Your task to perform on an android device: Open calendar and show me the first week of next month Image 0: 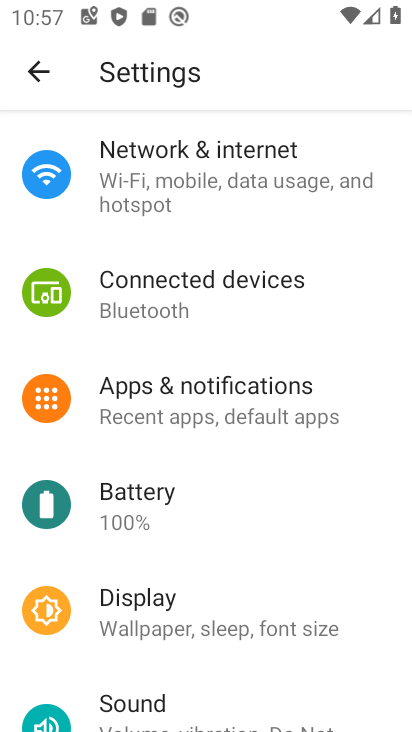
Step 0: press home button
Your task to perform on an android device: Open calendar and show me the first week of next month Image 1: 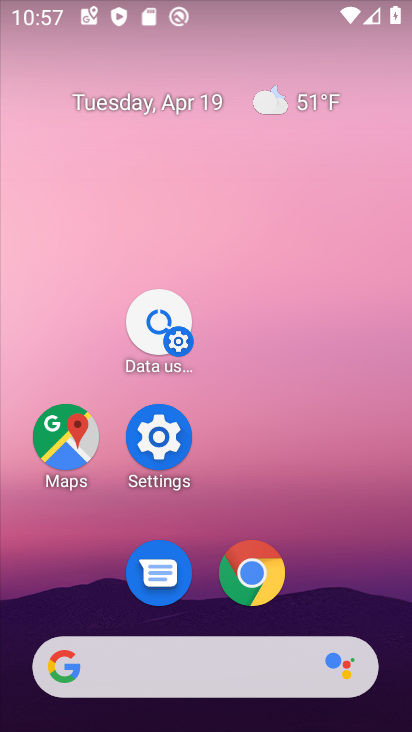
Step 1: drag from (365, 597) to (305, 2)
Your task to perform on an android device: Open calendar and show me the first week of next month Image 2: 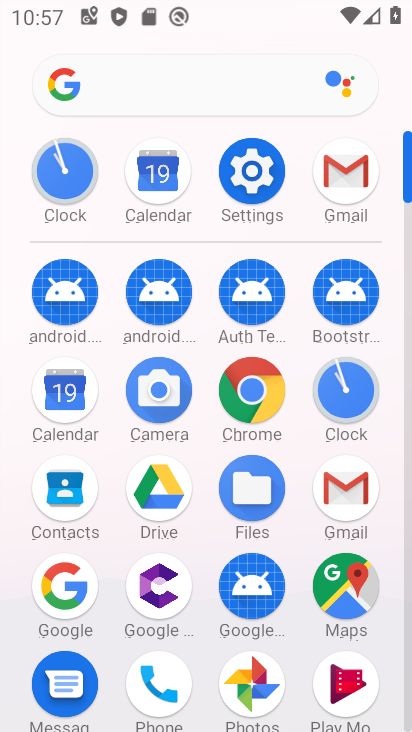
Step 2: click (64, 400)
Your task to perform on an android device: Open calendar and show me the first week of next month Image 3: 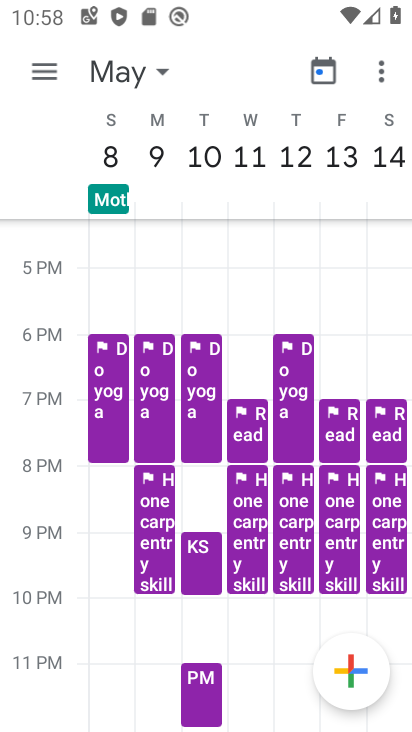
Step 3: task complete